Your task to perform on an android device: Go to Wikipedia Image 0: 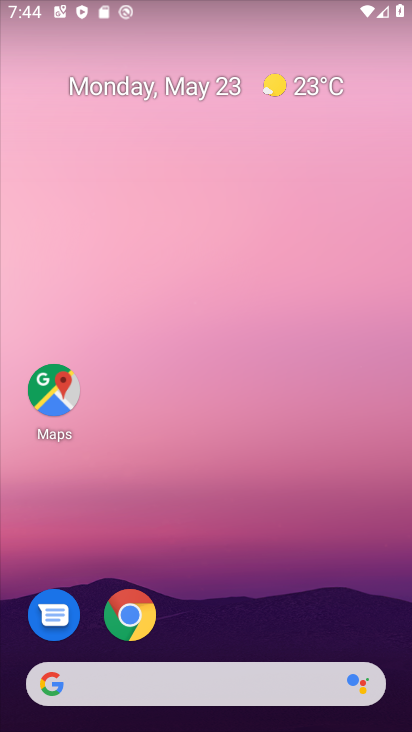
Step 0: click (128, 617)
Your task to perform on an android device: Go to Wikipedia Image 1: 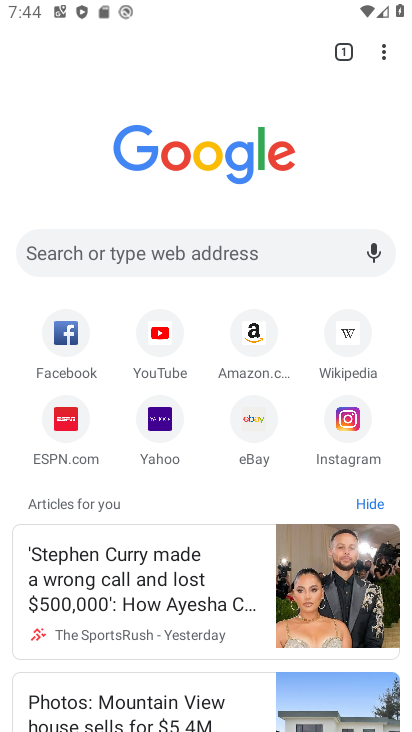
Step 1: click (351, 327)
Your task to perform on an android device: Go to Wikipedia Image 2: 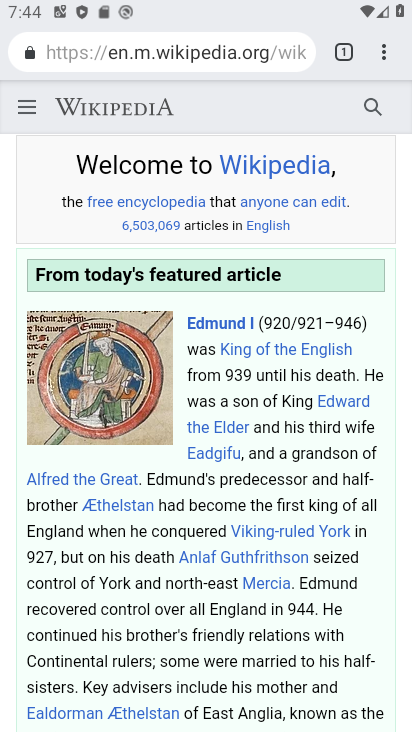
Step 2: task complete